Your task to perform on an android device: toggle show notifications on the lock screen Image 0: 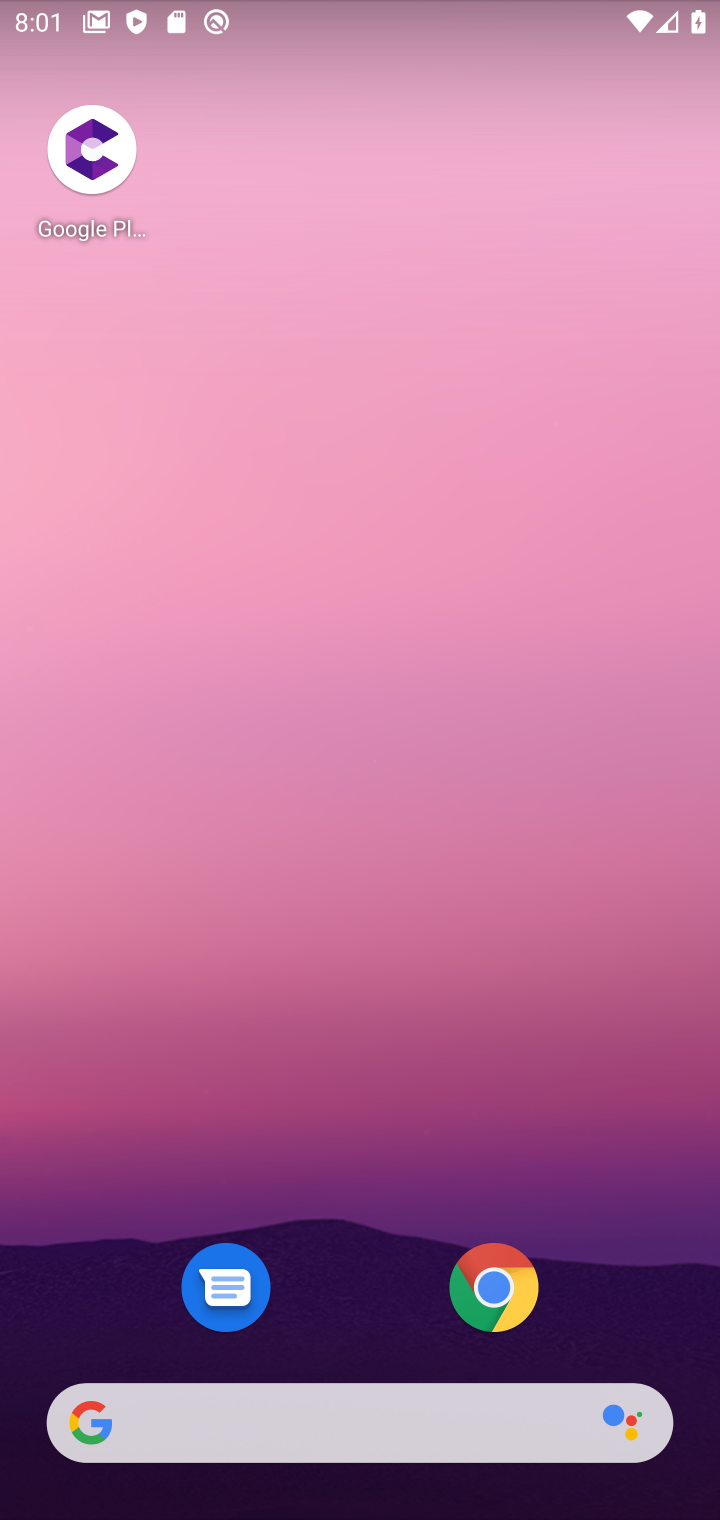
Step 0: drag from (350, 737) to (453, 97)
Your task to perform on an android device: toggle show notifications on the lock screen Image 1: 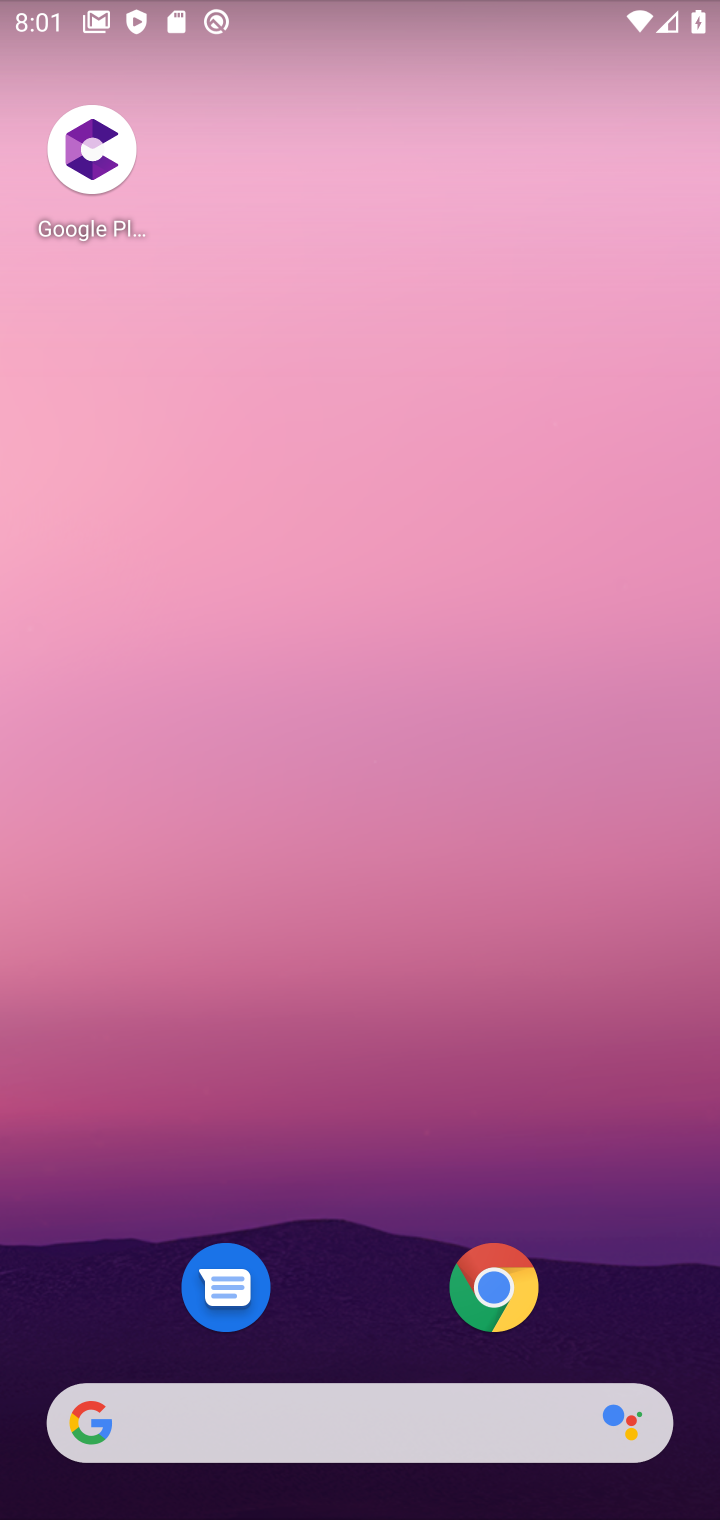
Step 1: drag from (373, 1334) to (397, 67)
Your task to perform on an android device: toggle show notifications on the lock screen Image 2: 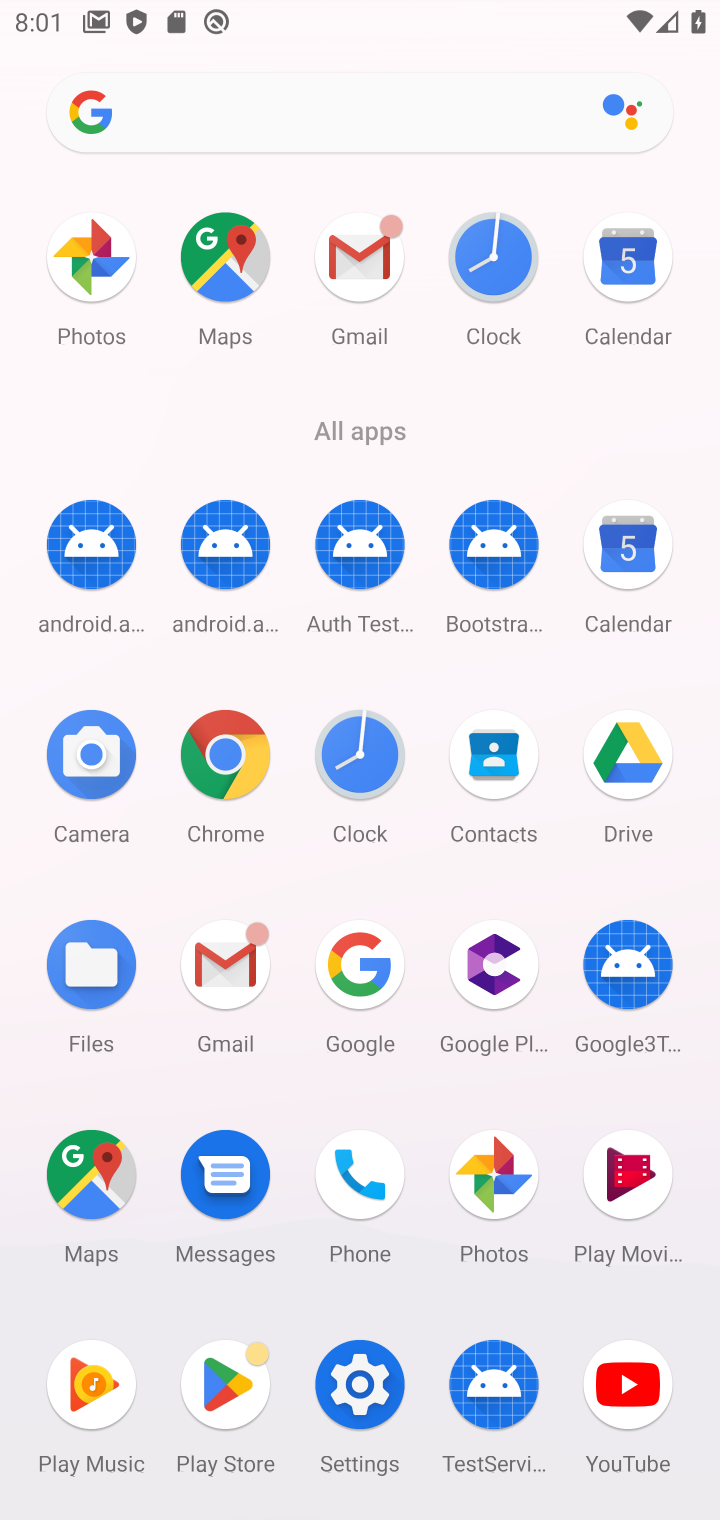
Step 2: click (374, 1433)
Your task to perform on an android device: toggle show notifications on the lock screen Image 3: 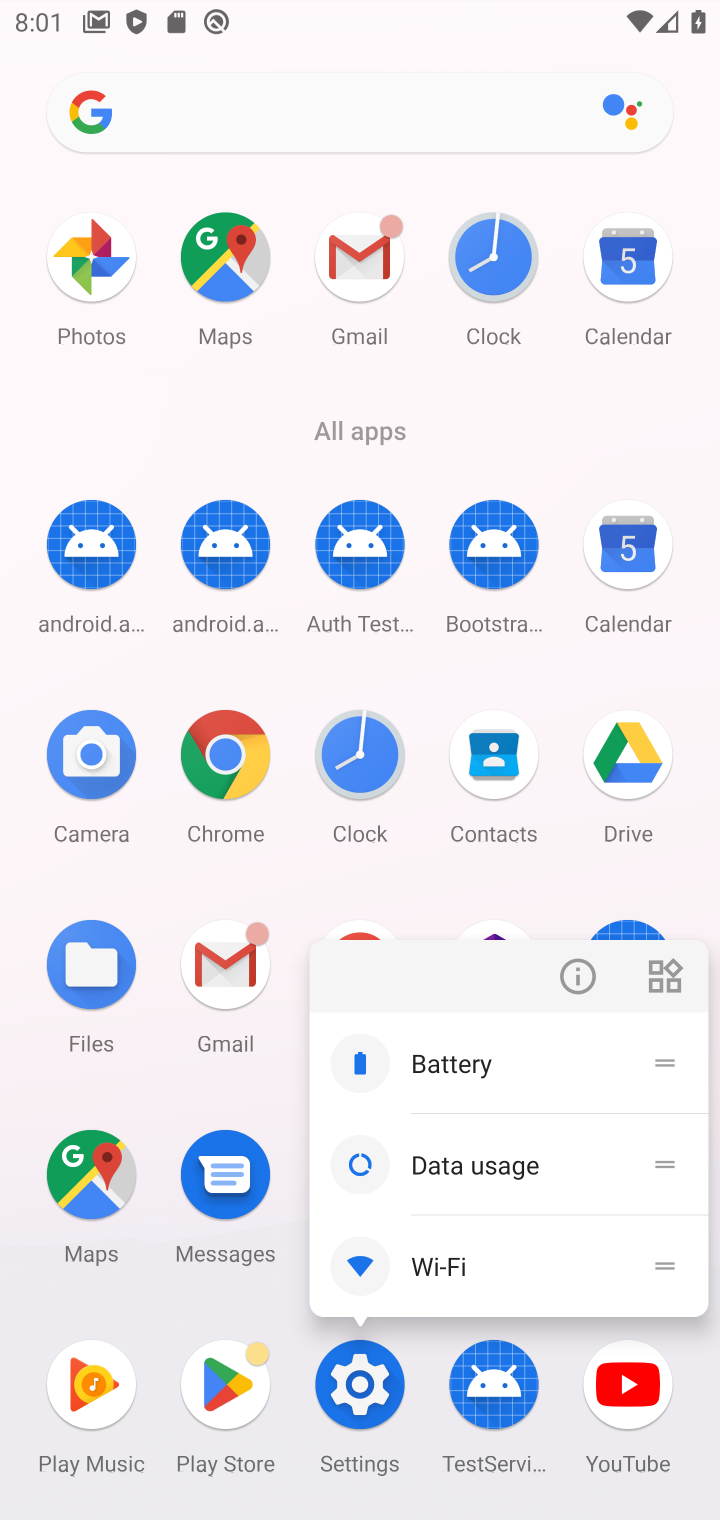
Step 3: click (353, 1387)
Your task to perform on an android device: toggle show notifications on the lock screen Image 4: 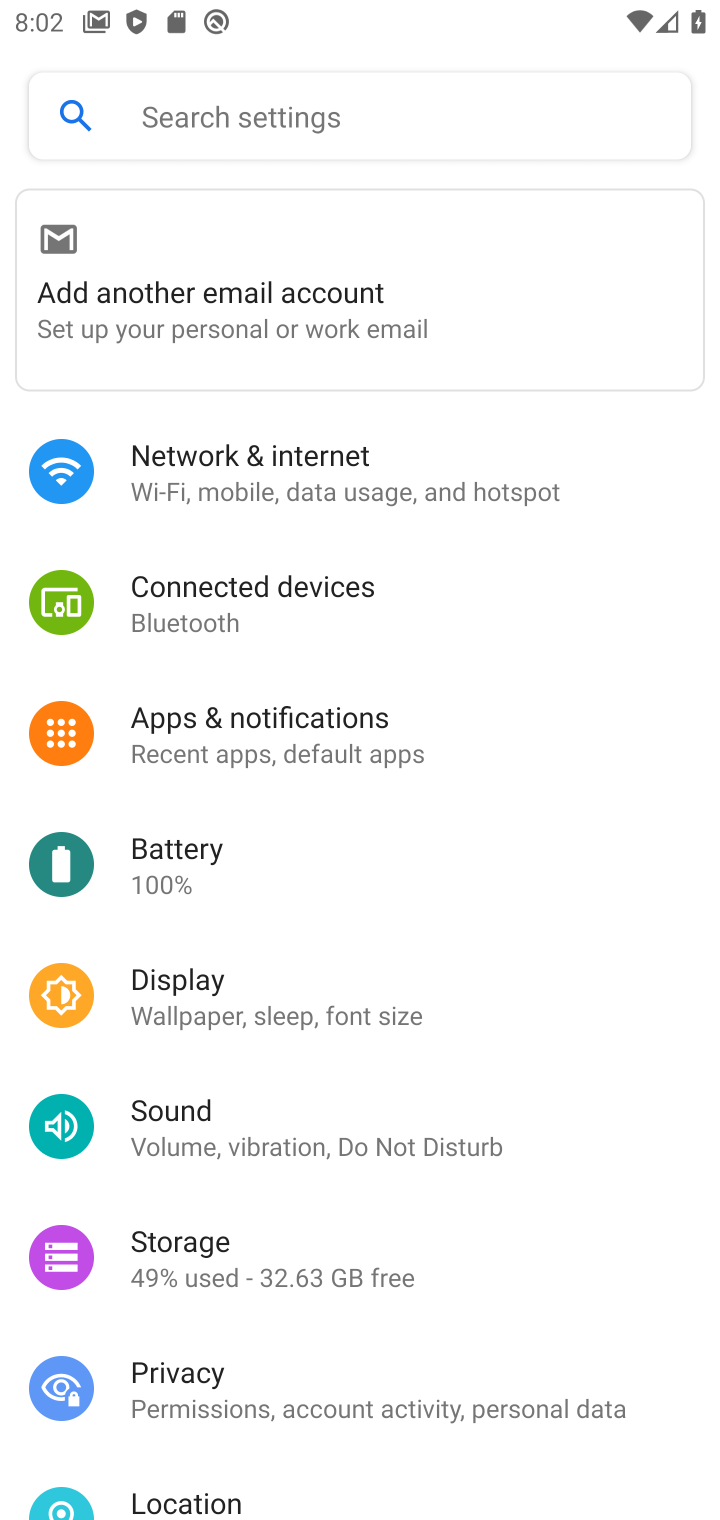
Step 4: click (321, 739)
Your task to perform on an android device: toggle show notifications on the lock screen Image 5: 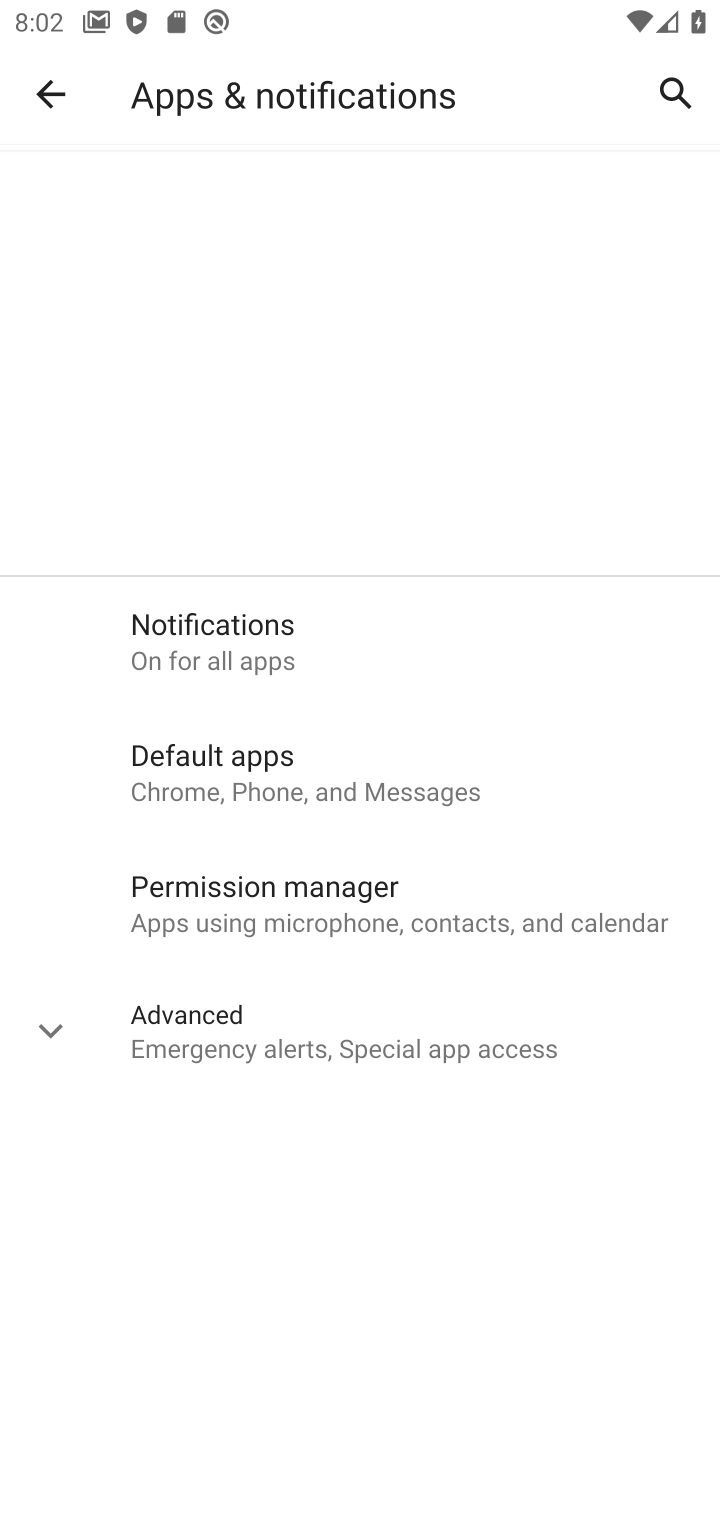
Step 5: click (236, 624)
Your task to perform on an android device: toggle show notifications on the lock screen Image 6: 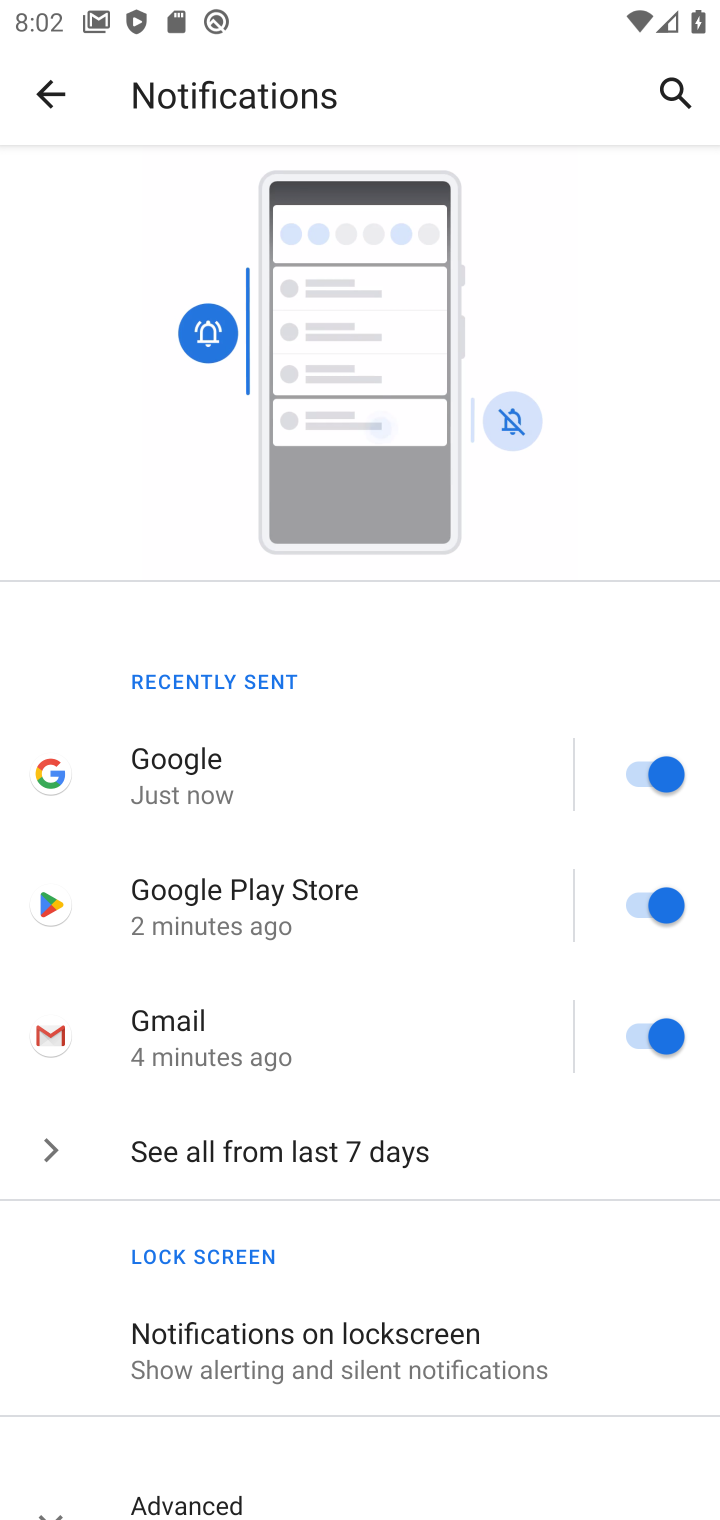
Step 6: click (227, 1356)
Your task to perform on an android device: toggle show notifications on the lock screen Image 7: 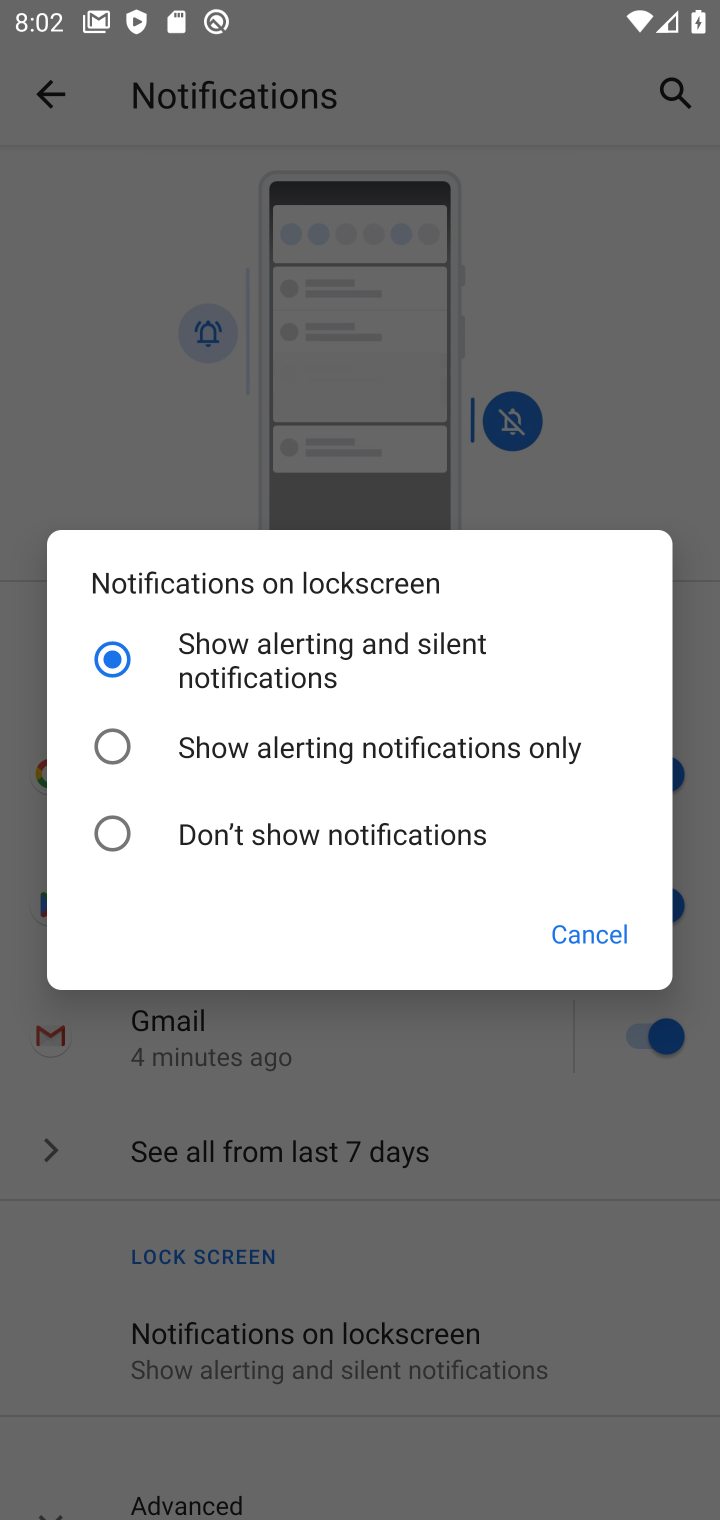
Step 7: click (131, 749)
Your task to perform on an android device: toggle show notifications on the lock screen Image 8: 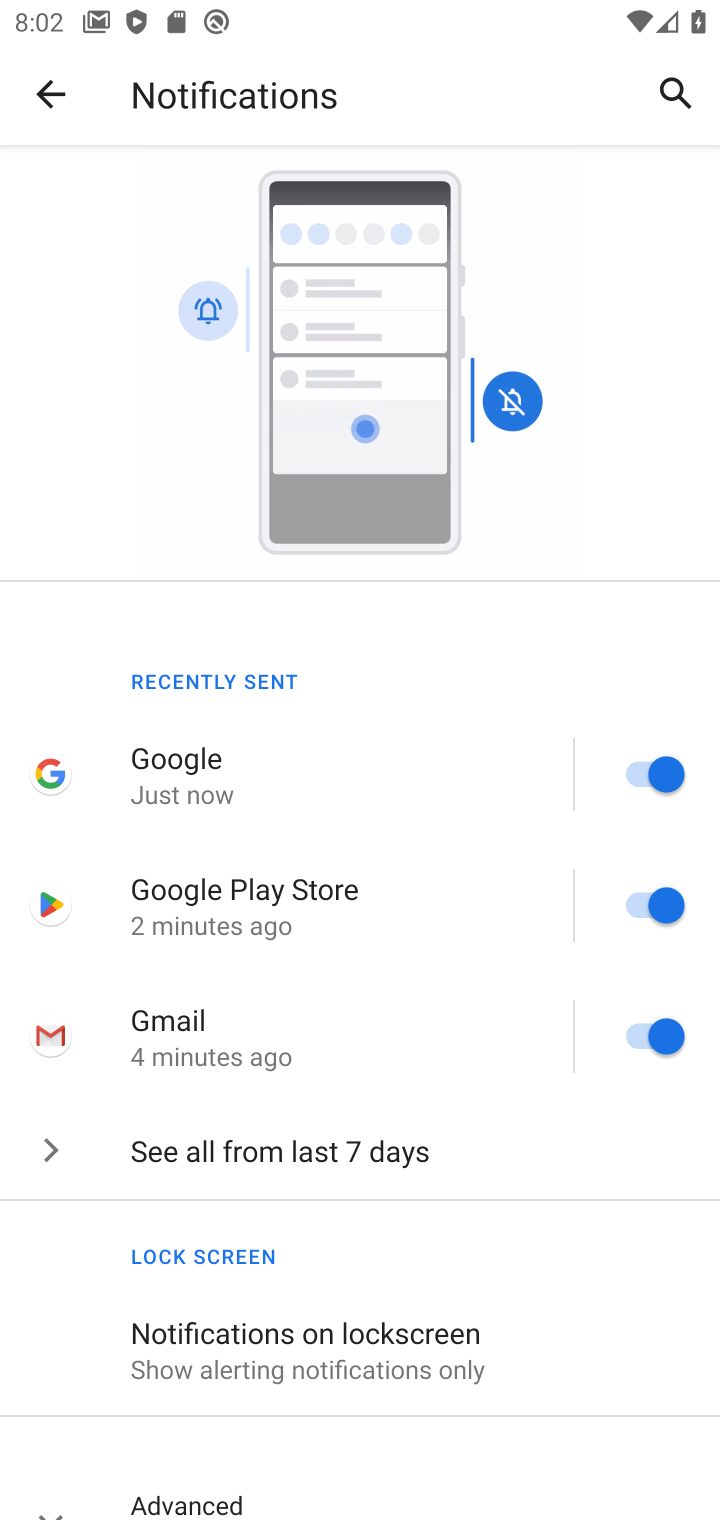
Step 8: task complete